Your task to perform on an android device: change the clock display to analog Image 0: 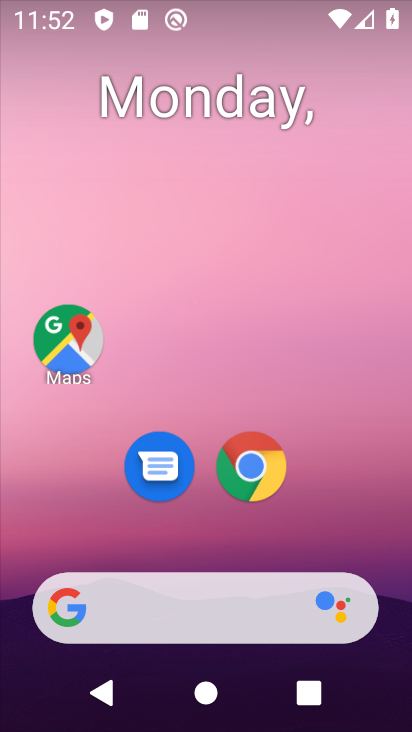
Step 0: drag from (180, 532) to (166, 175)
Your task to perform on an android device: change the clock display to analog Image 1: 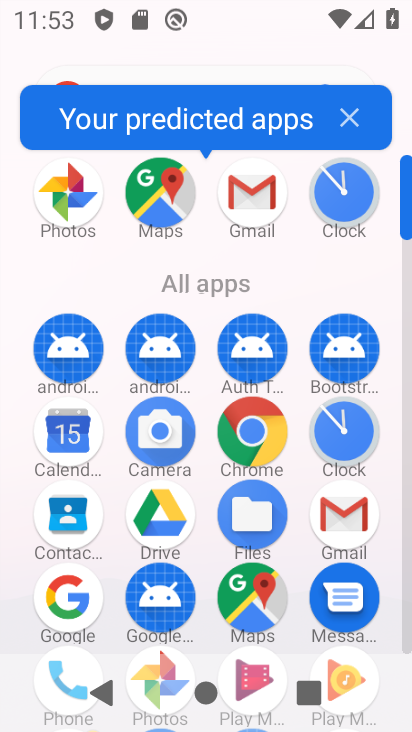
Step 1: click (318, 195)
Your task to perform on an android device: change the clock display to analog Image 2: 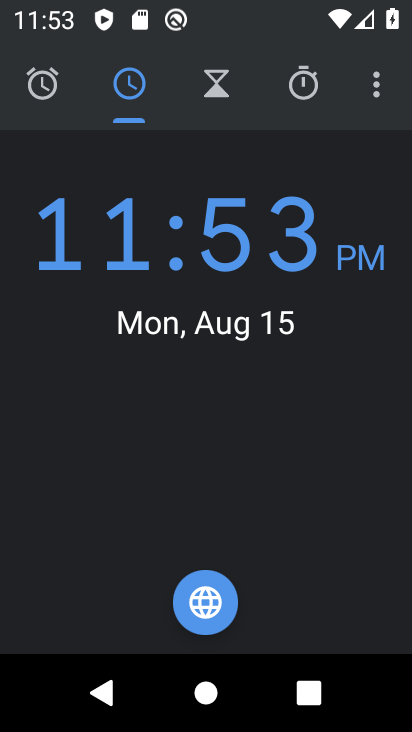
Step 2: click (368, 87)
Your task to perform on an android device: change the clock display to analog Image 3: 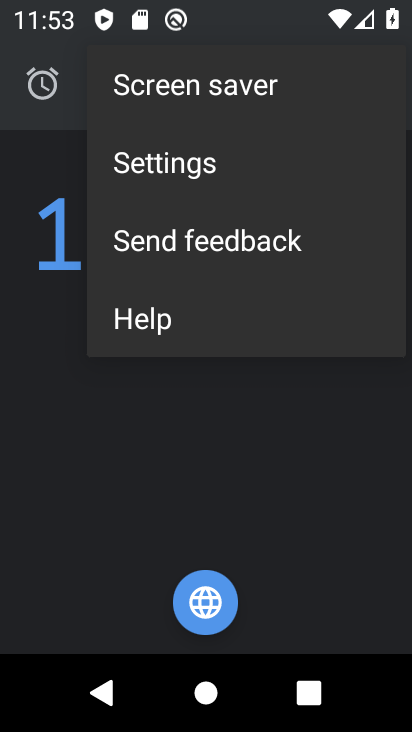
Step 3: click (230, 151)
Your task to perform on an android device: change the clock display to analog Image 4: 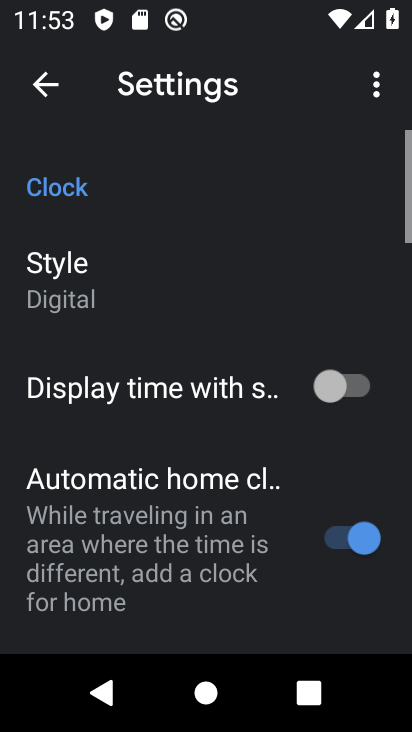
Step 4: click (103, 274)
Your task to perform on an android device: change the clock display to analog Image 5: 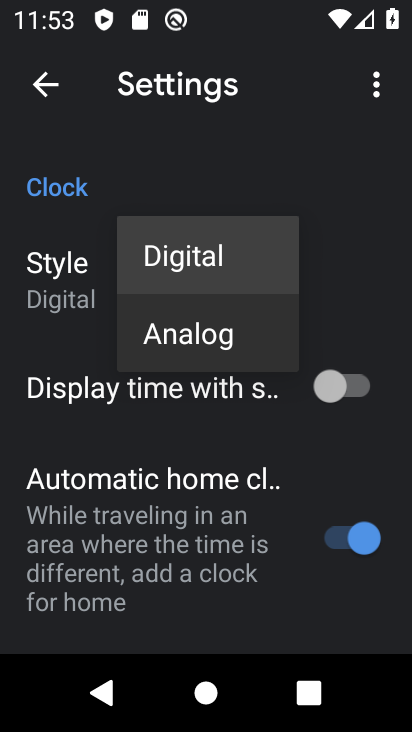
Step 5: click (166, 347)
Your task to perform on an android device: change the clock display to analog Image 6: 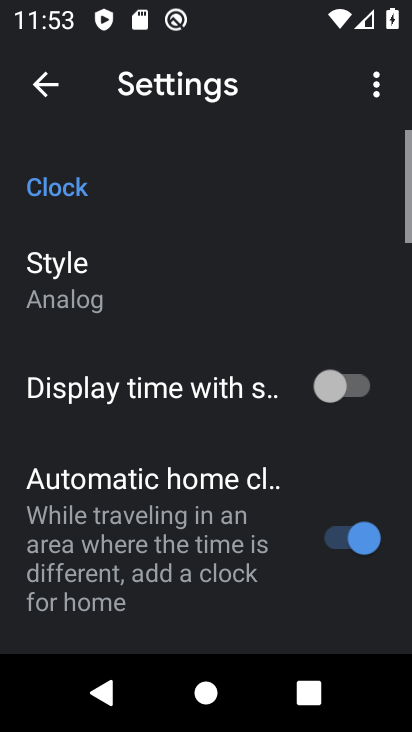
Step 6: task complete